Your task to perform on an android device: Show me popular games on the Play Store Image 0: 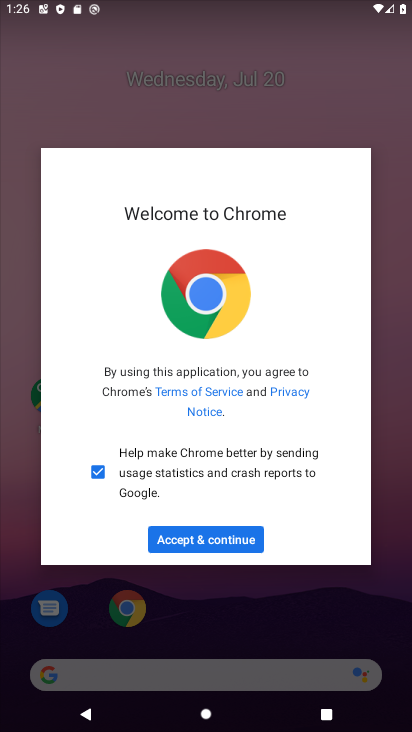
Step 0: press home button
Your task to perform on an android device: Show me popular games on the Play Store Image 1: 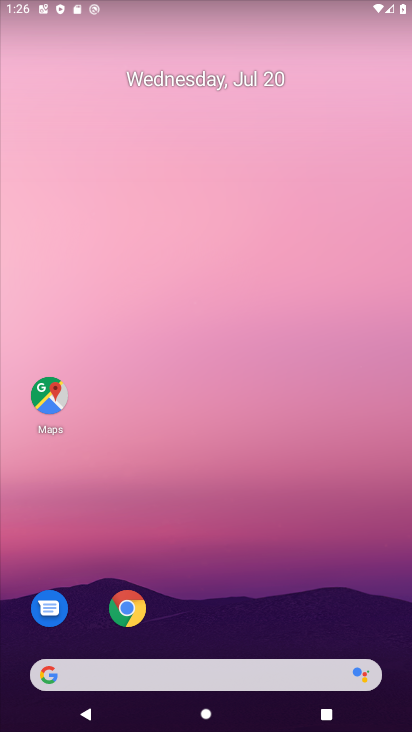
Step 1: drag from (204, 619) to (204, 182)
Your task to perform on an android device: Show me popular games on the Play Store Image 2: 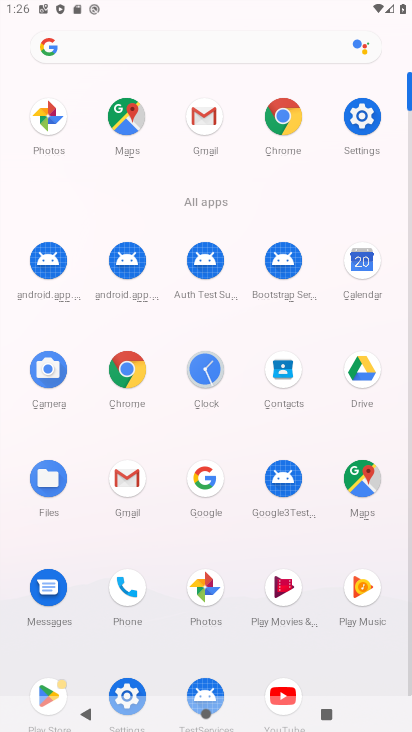
Step 2: click (62, 686)
Your task to perform on an android device: Show me popular games on the Play Store Image 3: 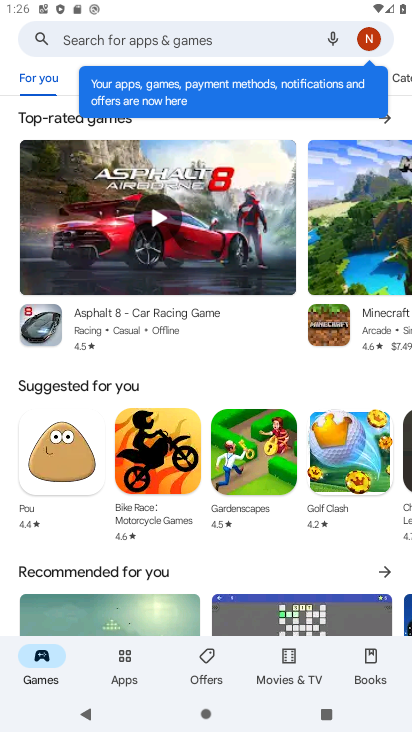
Step 3: click (129, 663)
Your task to perform on an android device: Show me popular games on the Play Store Image 4: 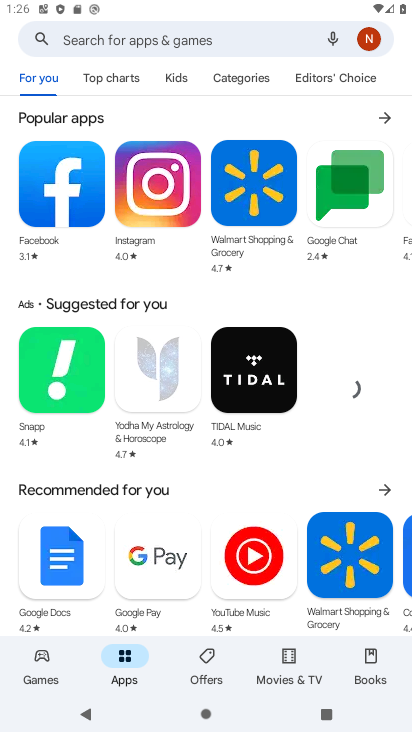
Step 4: click (105, 86)
Your task to perform on an android device: Show me popular games on the Play Store Image 5: 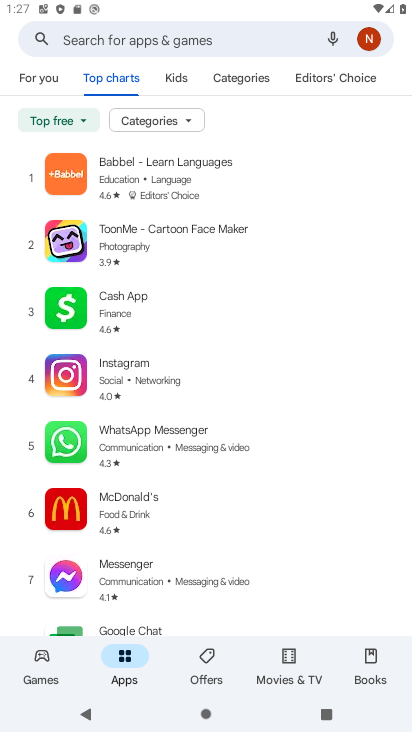
Step 5: task complete